Your task to perform on an android device: open a bookmark in the chrome app Image 0: 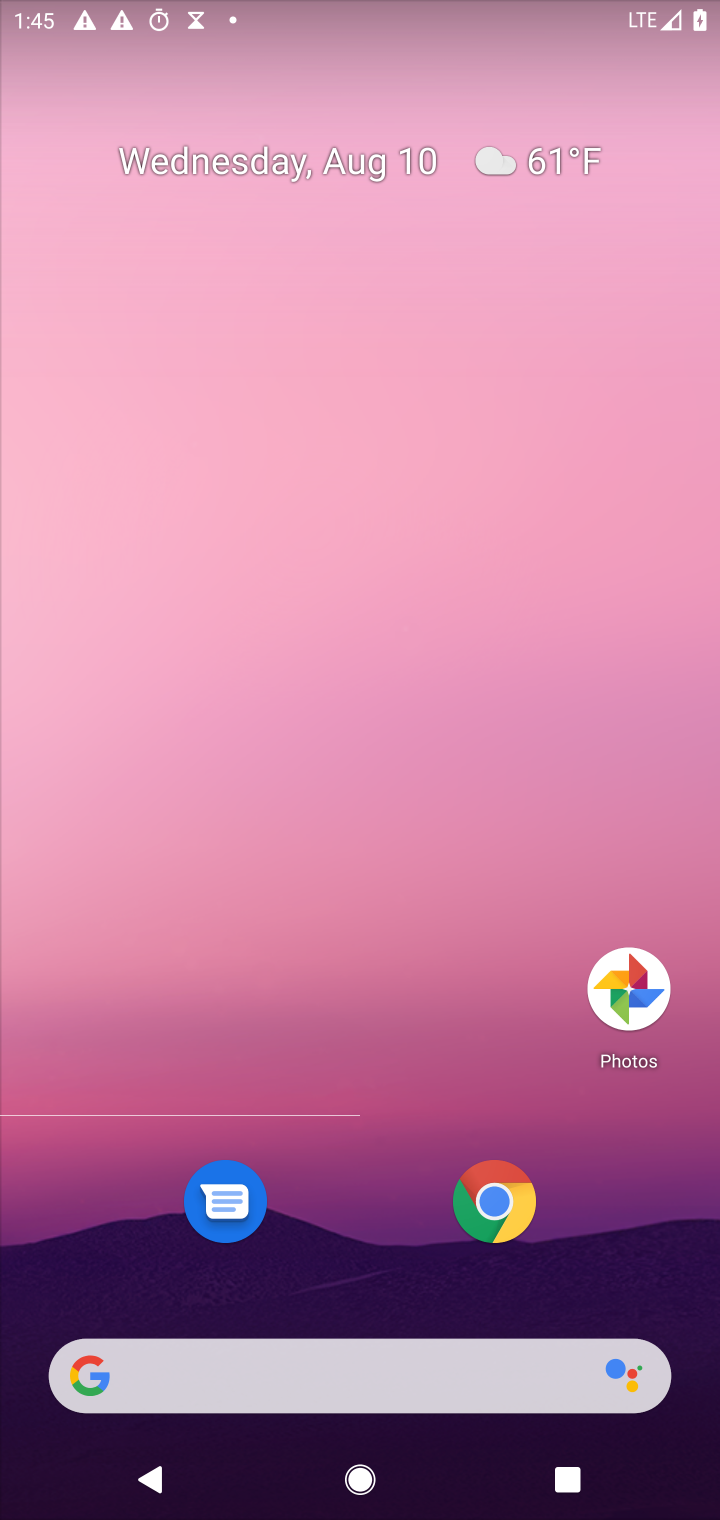
Step 0: press home button
Your task to perform on an android device: open a bookmark in the chrome app Image 1: 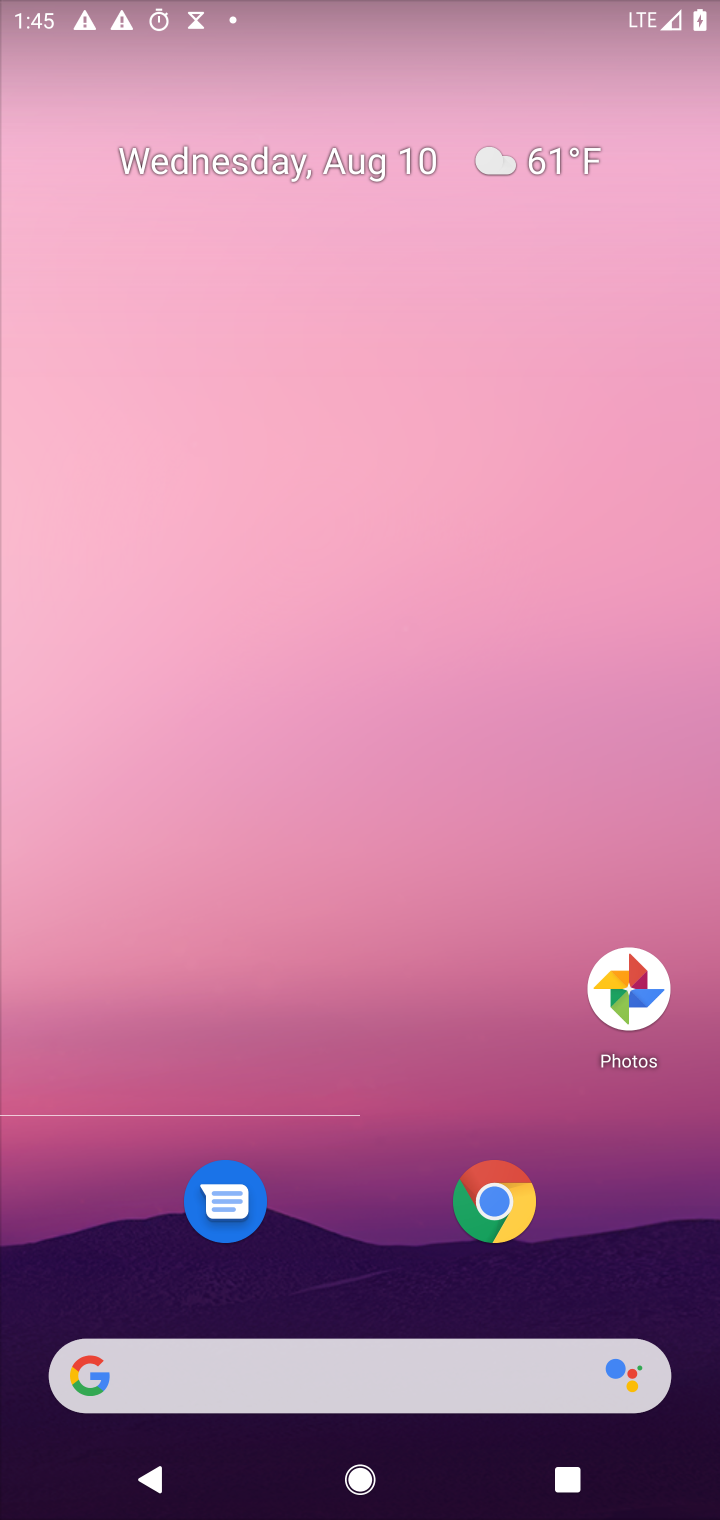
Step 1: click (497, 1223)
Your task to perform on an android device: open a bookmark in the chrome app Image 2: 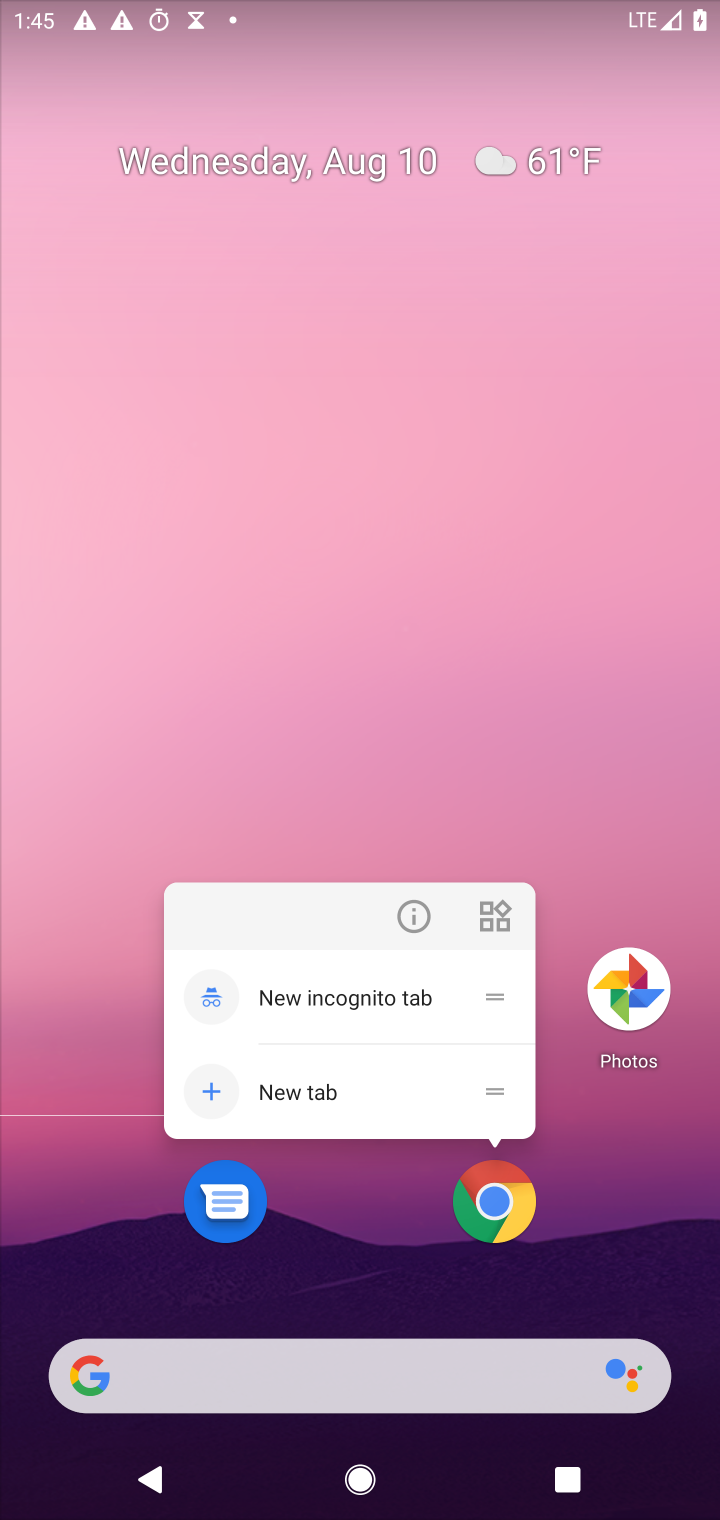
Step 2: click (497, 1223)
Your task to perform on an android device: open a bookmark in the chrome app Image 3: 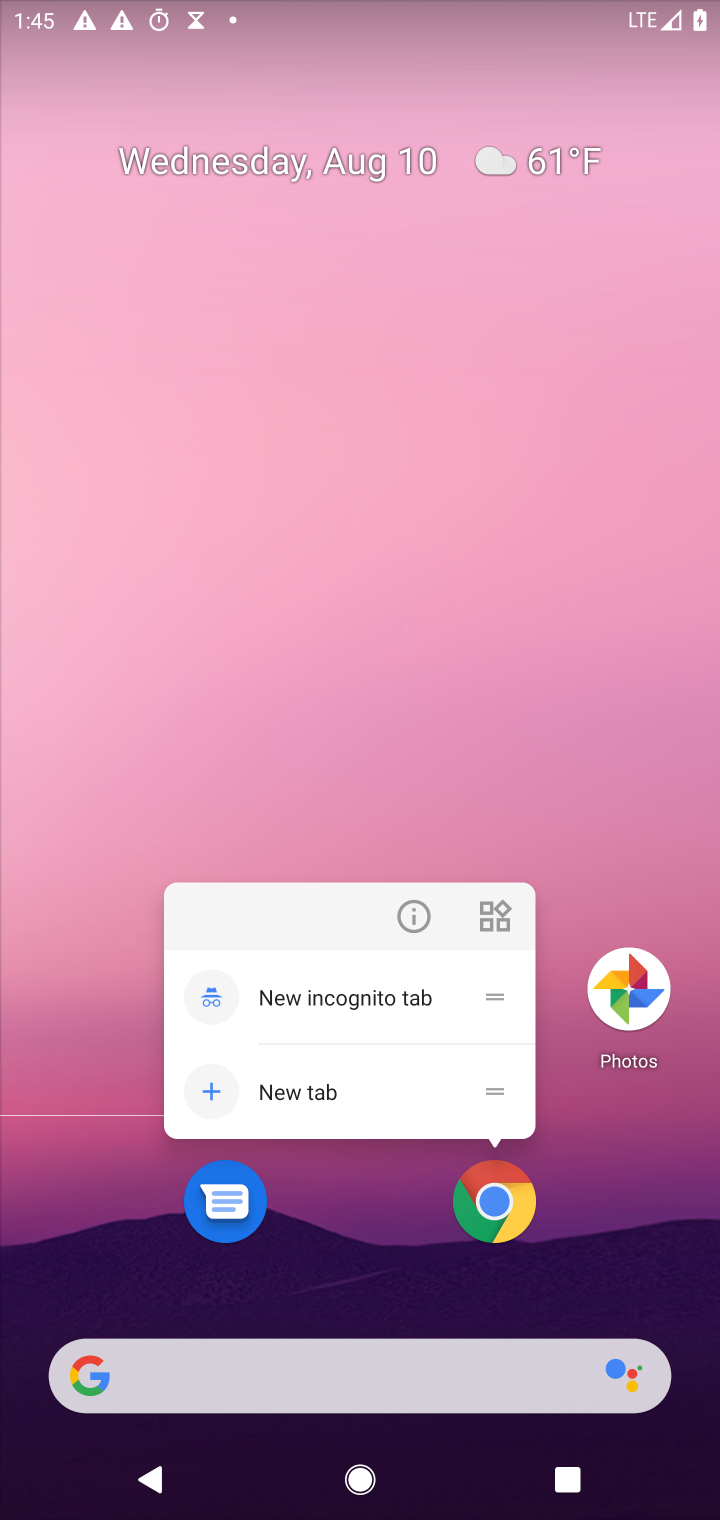
Step 3: click (497, 1223)
Your task to perform on an android device: open a bookmark in the chrome app Image 4: 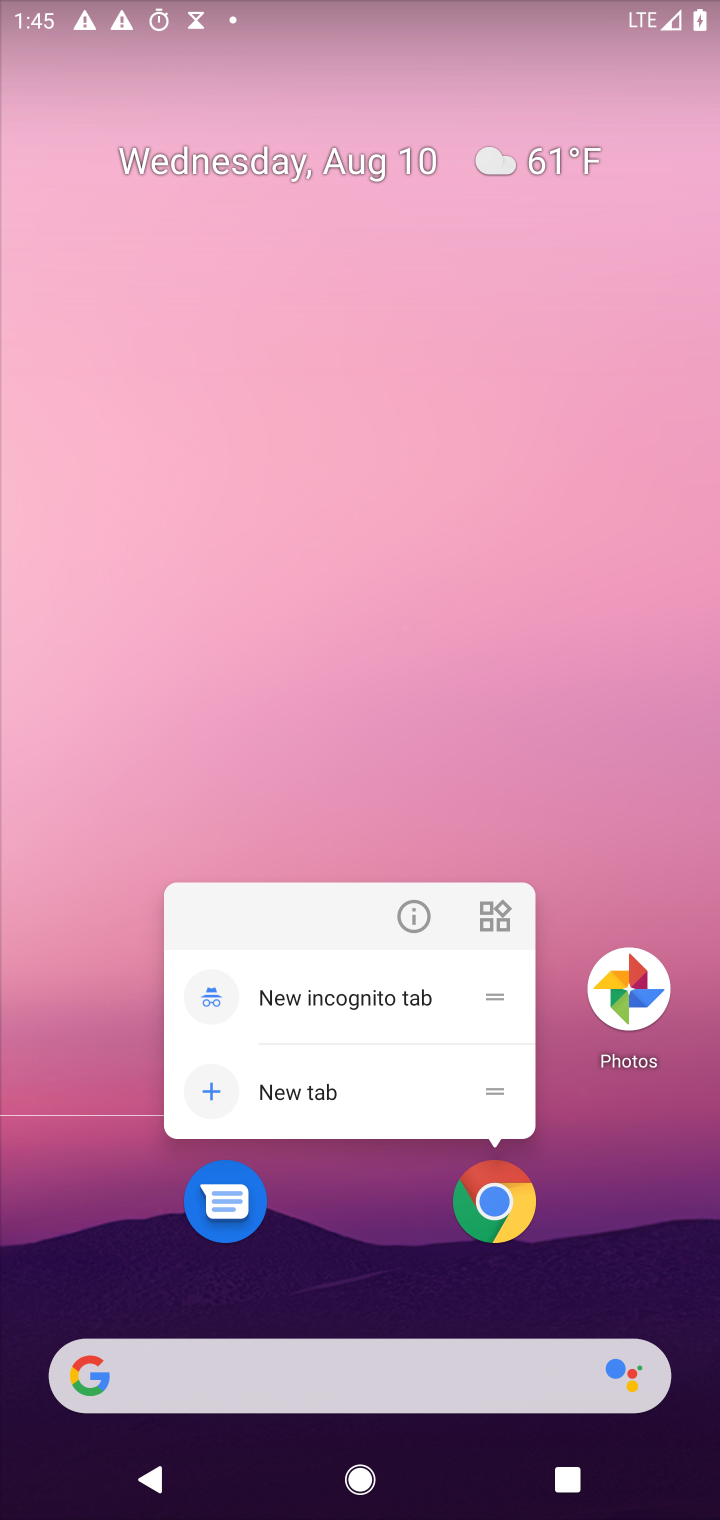
Step 4: click (497, 1223)
Your task to perform on an android device: open a bookmark in the chrome app Image 5: 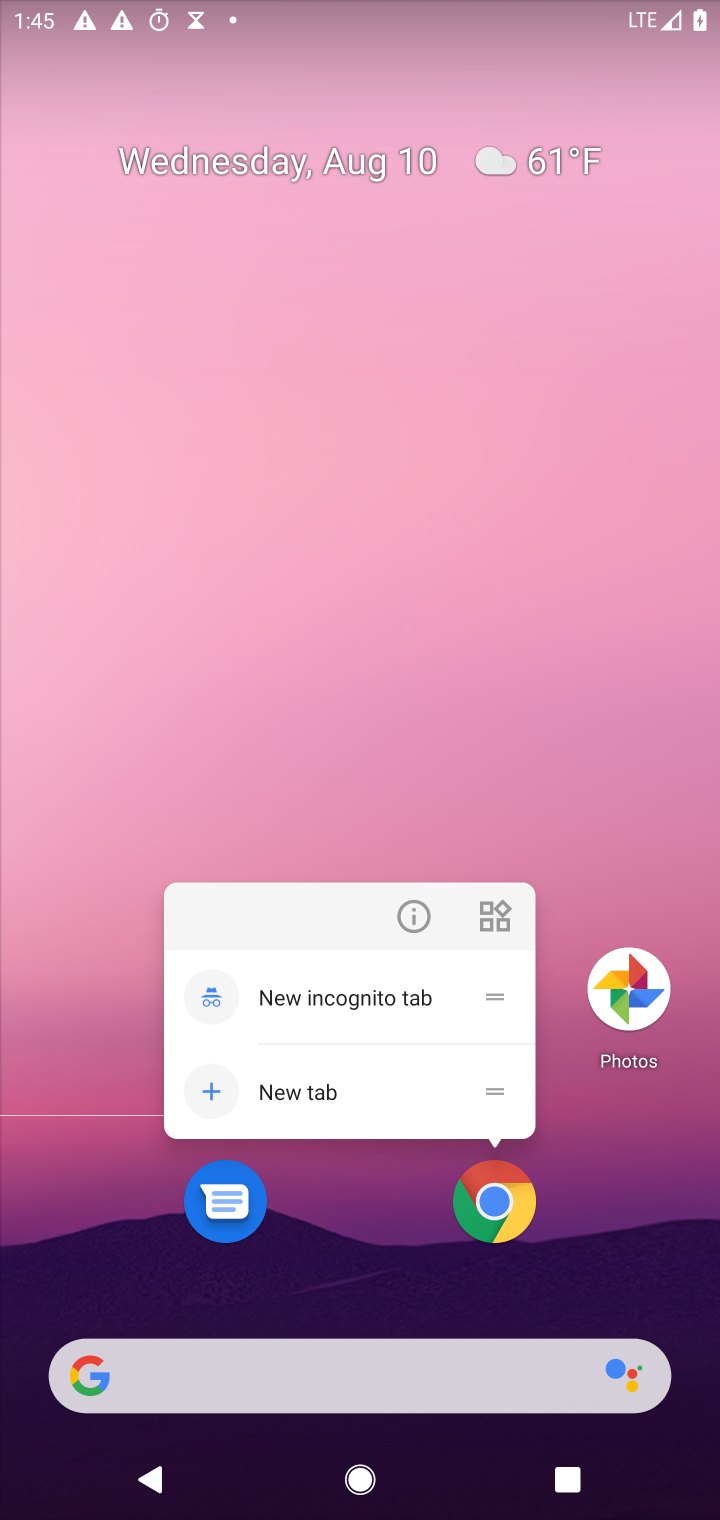
Step 5: click (496, 1221)
Your task to perform on an android device: open a bookmark in the chrome app Image 6: 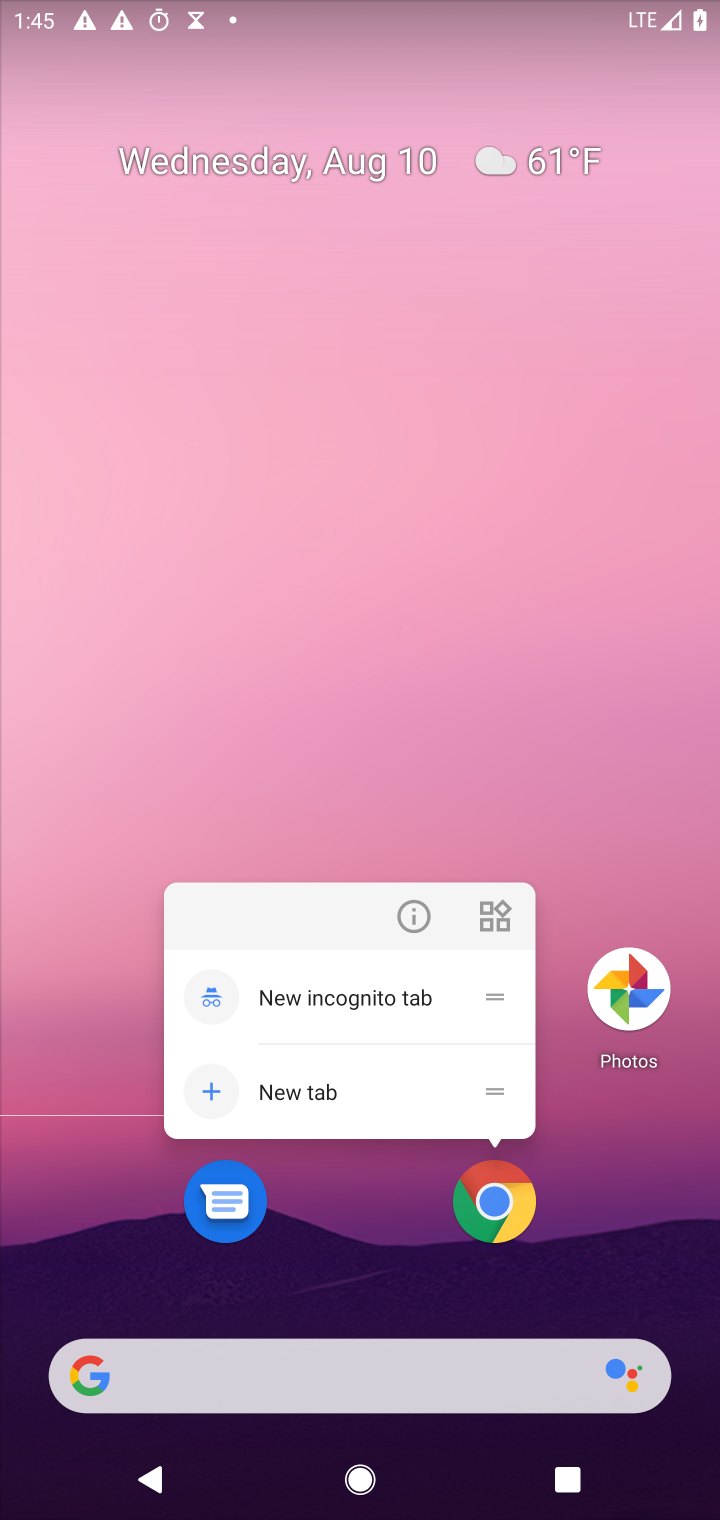
Step 6: click (480, 1192)
Your task to perform on an android device: open a bookmark in the chrome app Image 7: 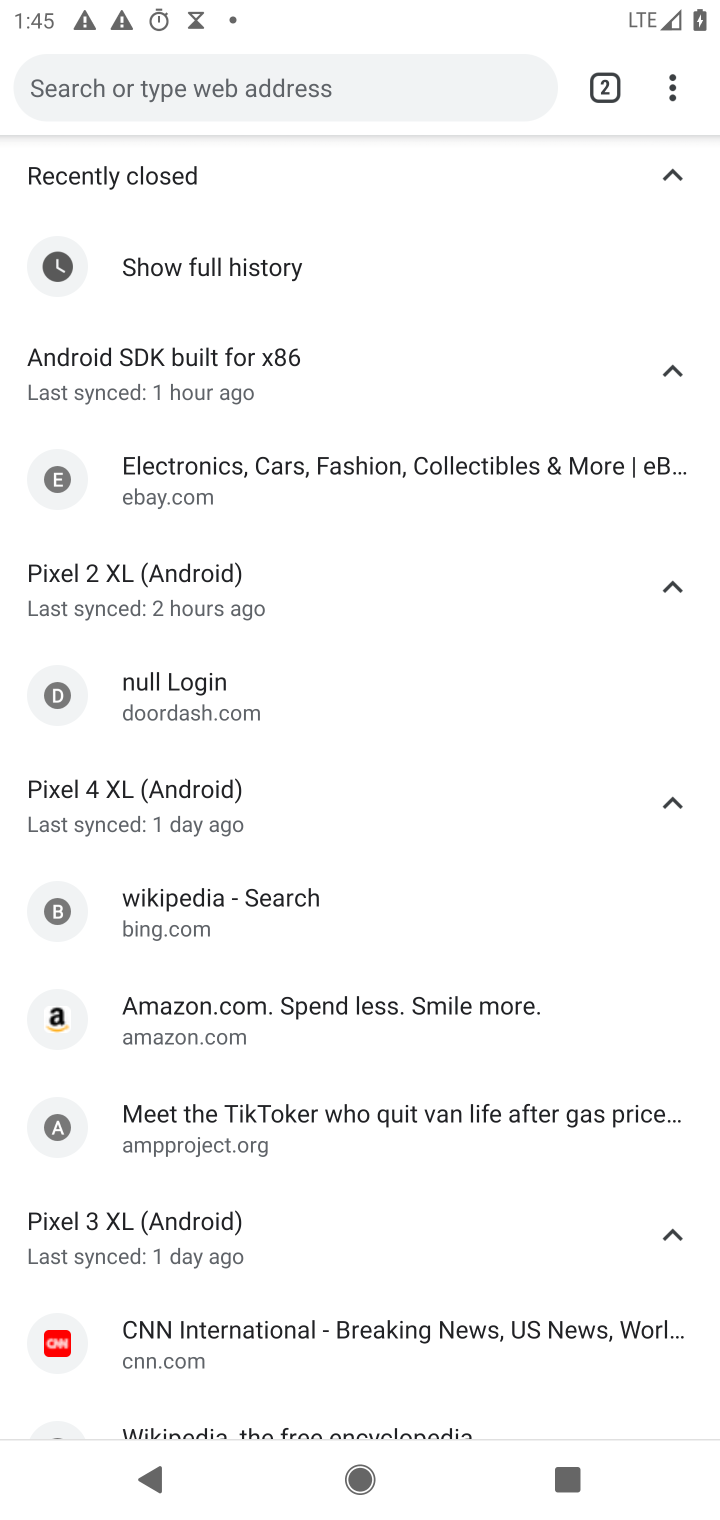
Step 7: drag from (680, 86) to (406, 344)
Your task to perform on an android device: open a bookmark in the chrome app Image 8: 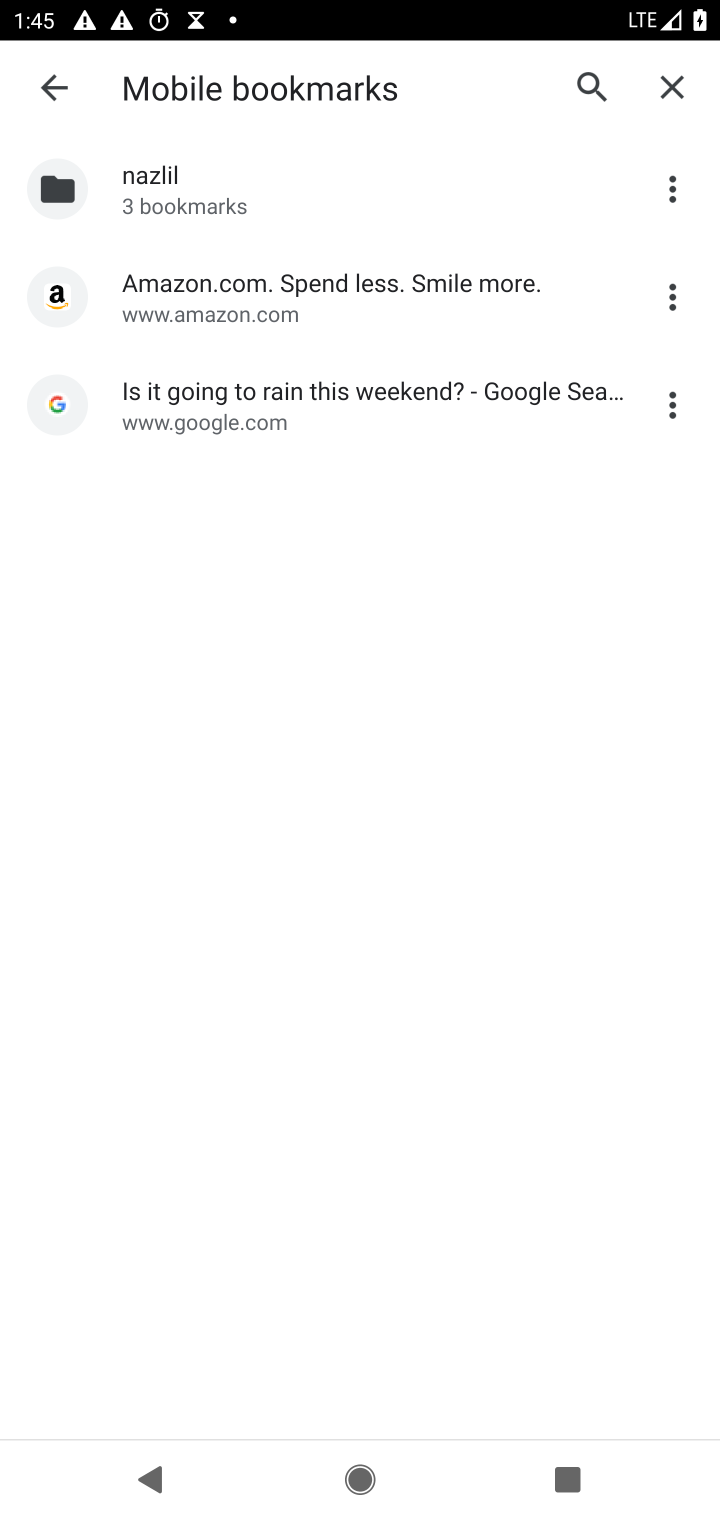
Step 8: click (197, 307)
Your task to perform on an android device: open a bookmark in the chrome app Image 9: 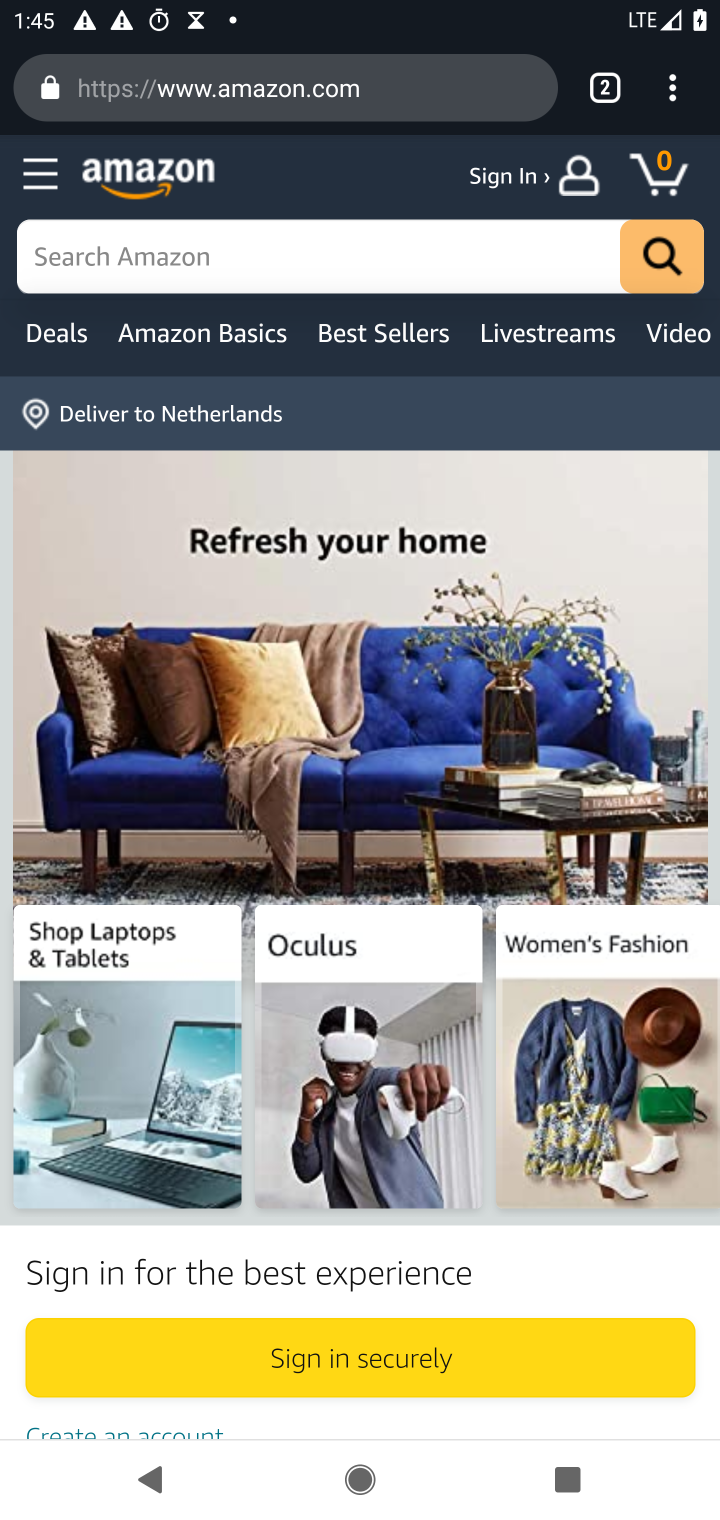
Step 9: task complete